Your task to perform on an android device: Open wifi settings Image 0: 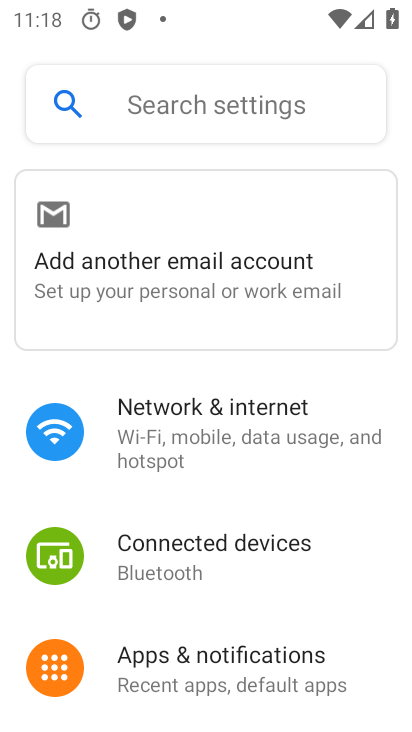
Step 0: click (166, 429)
Your task to perform on an android device: Open wifi settings Image 1: 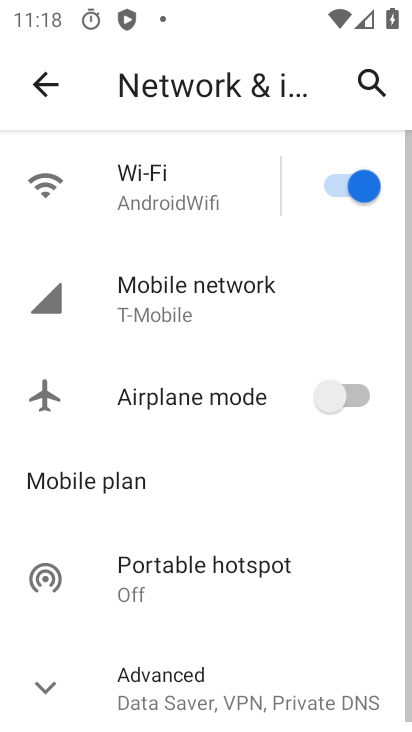
Step 1: click (140, 186)
Your task to perform on an android device: Open wifi settings Image 2: 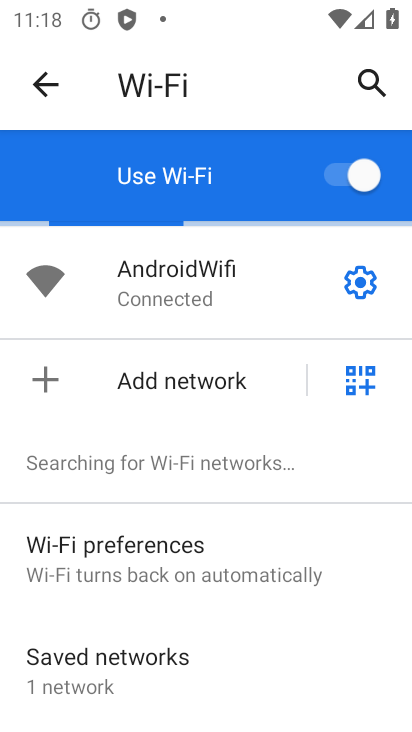
Step 2: click (350, 281)
Your task to perform on an android device: Open wifi settings Image 3: 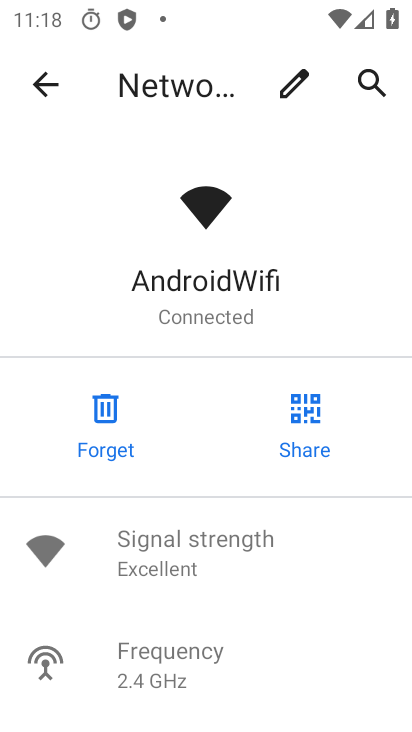
Step 3: task complete